Your task to perform on an android device: turn on showing notifications on the lock screen Image 0: 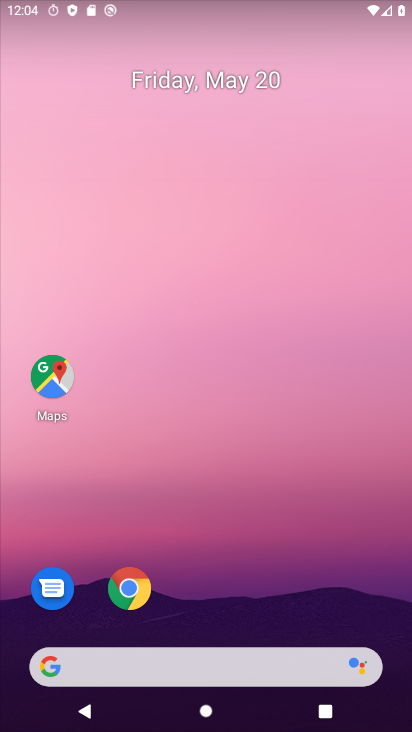
Step 0: drag from (275, 536) to (309, 155)
Your task to perform on an android device: turn on showing notifications on the lock screen Image 1: 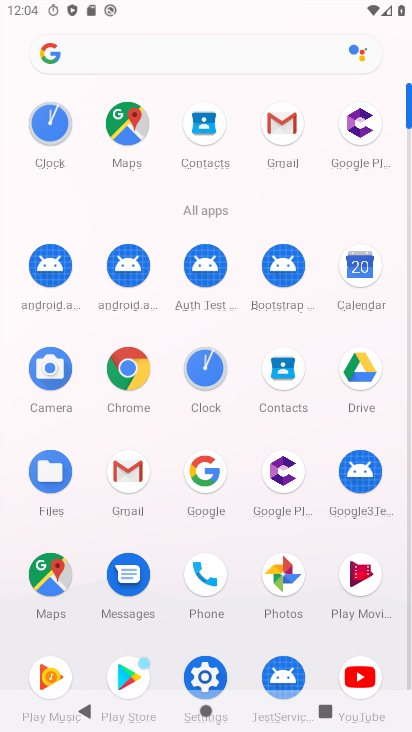
Step 1: drag from (310, 466) to (299, 214)
Your task to perform on an android device: turn on showing notifications on the lock screen Image 2: 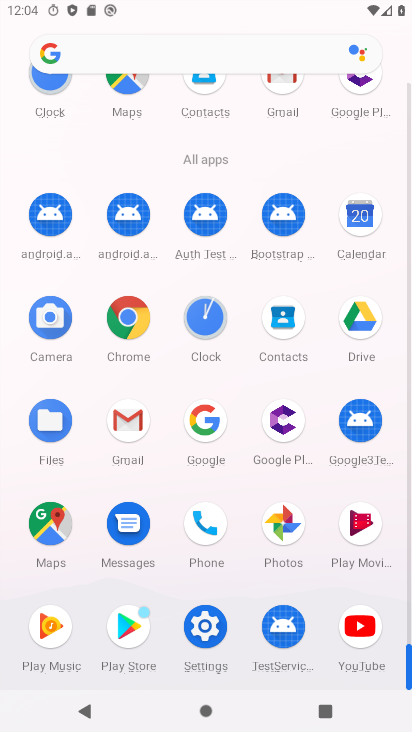
Step 2: click (217, 631)
Your task to perform on an android device: turn on showing notifications on the lock screen Image 3: 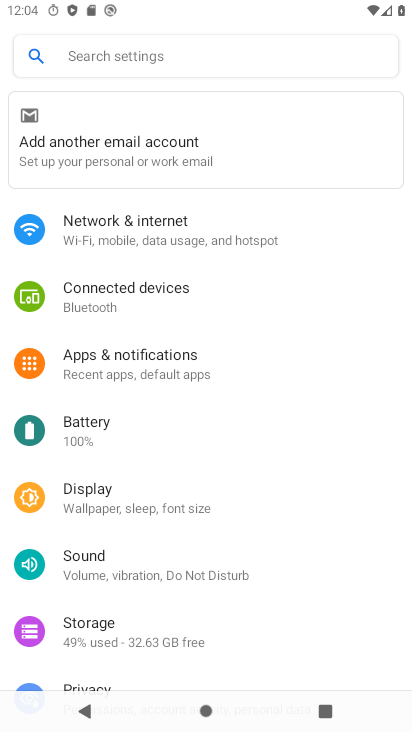
Step 3: click (219, 358)
Your task to perform on an android device: turn on showing notifications on the lock screen Image 4: 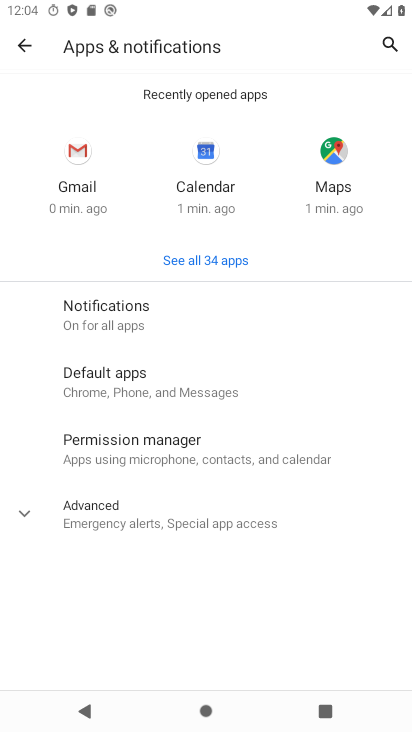
Step 4: click (202, 314)
Your task to perform on an android device: turn on showing notifications on the lock screen Image 5: 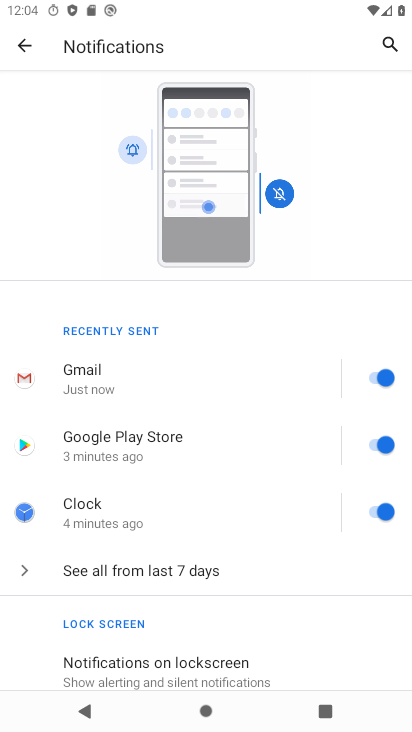
Step 5: drag from (233, 462) to (223, 252)
Your task to perform on an android device: turn on showing notifications on the lock screen Image 6: 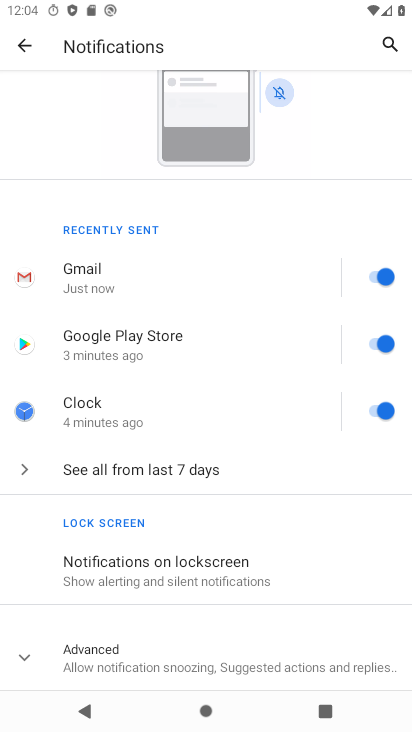
Step 6: click (241, 576)
Your task to perform on an android device: turn on showing notifications on the lock screen Image 7: 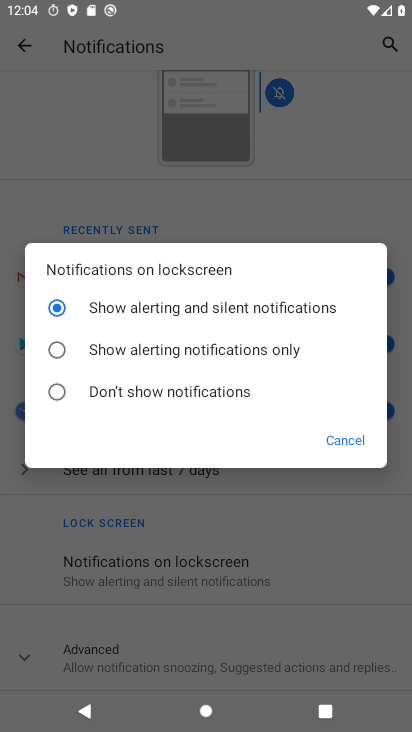
Step 7: task complete